Your task to perform on an android device: Go to Google Image 0: 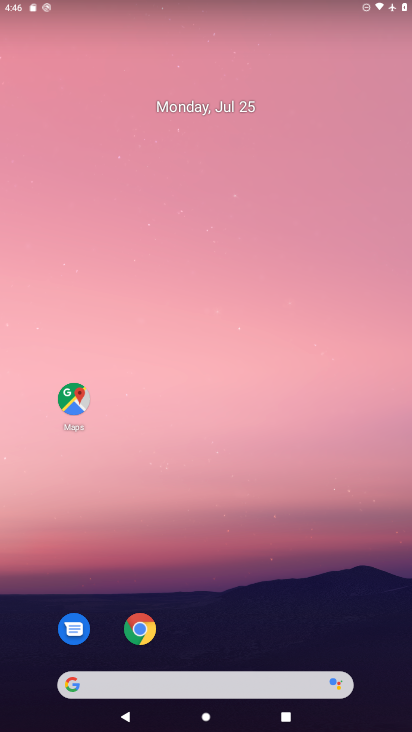
Step 0: drag from (236, 673) to (270, 17)
Your task to perform on an android device: Go to Google Image 1: 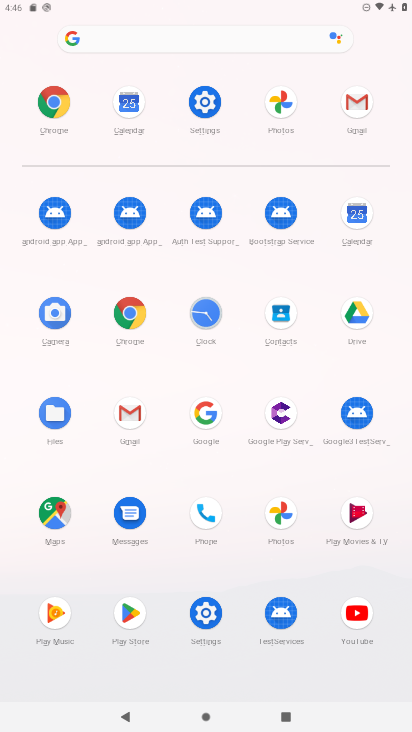
Step 1: click (133, 317)
Your task to perform on an android device: Go to Google Image 2: 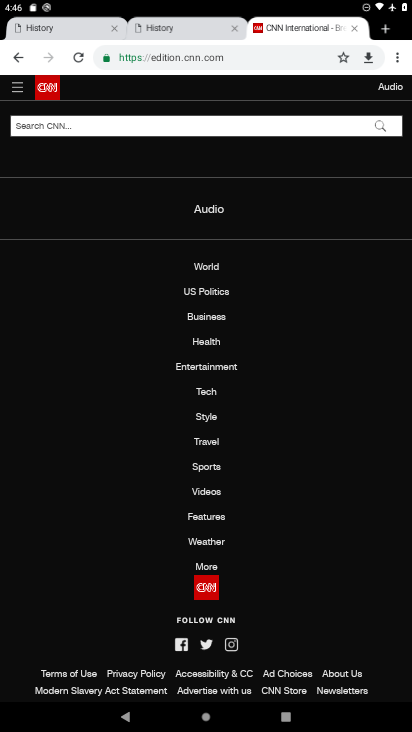
Step 2: task complete